Your task to perform on an android device: Open the stopwatch Image 0: 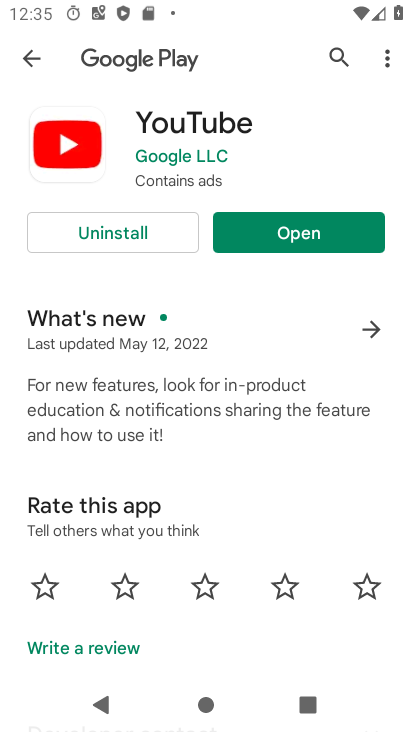
Step 0: press home button
Your task to perform on an android device: Open the stopwatch Image 1: 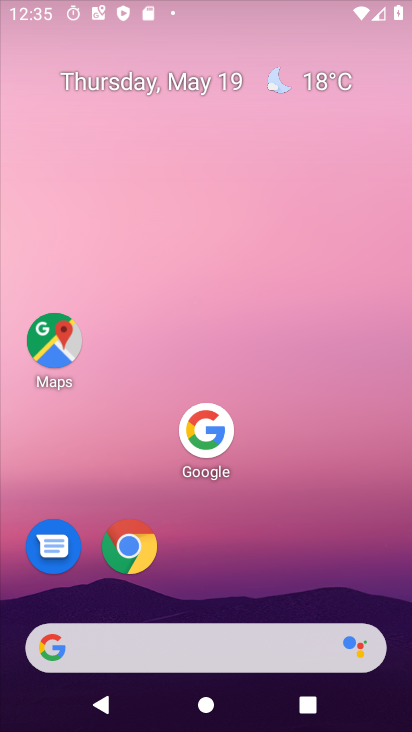
Step 1: drag from (236, 564) to (251, 87)
Your task to perform on an android device: Open the stopwatch Image 2: 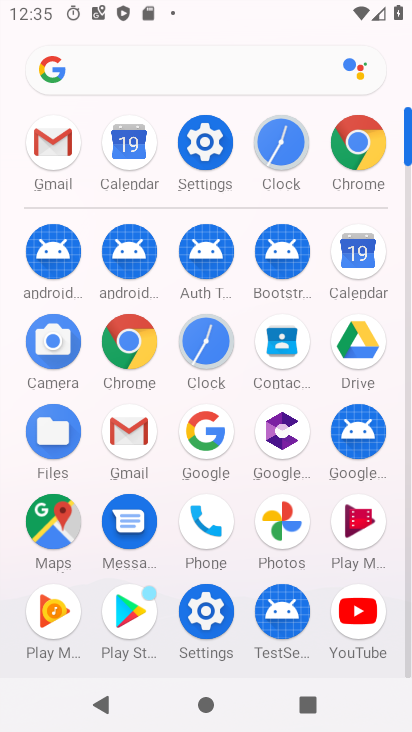
Step 2: click (203, 342)
Your task to perform on an android device: Open the stopwatch Image 3: 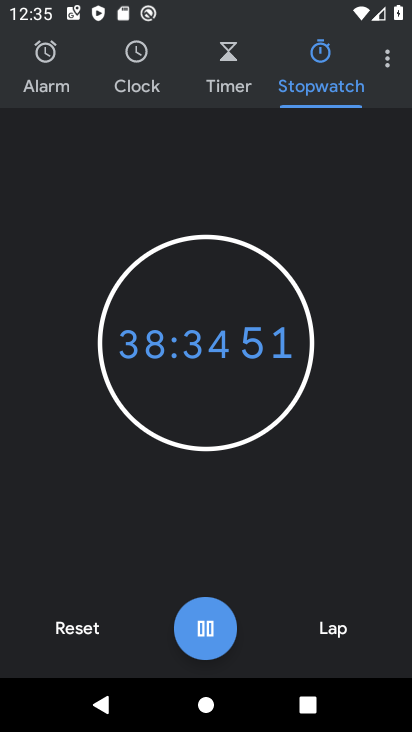
Step 3: click (376, 61)
Your task to perform on an android device: Open the stopwatch Image 4: 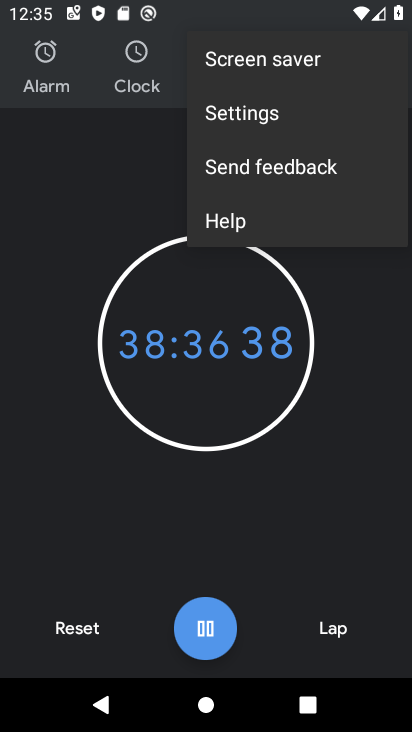
Step 4: click (290, 116)
Your task to perform on an android device: Open the stopwatch Image 5: 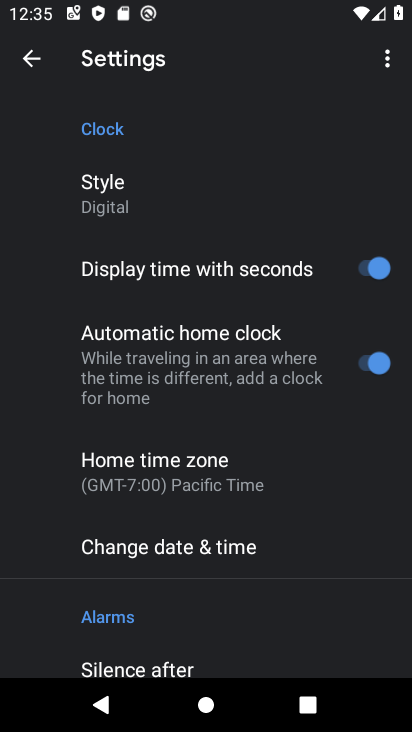
Step 5: task complete